Your task to perform on an android device: turn on translation in the chrome app Image 0: 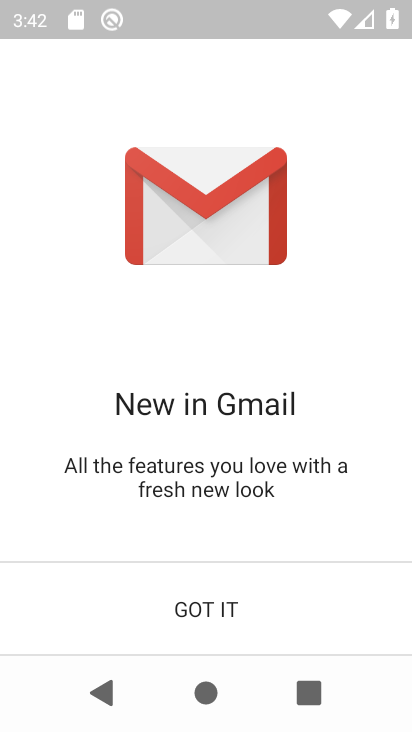
Step 0: press back button
Your task to perform on an android device: turn on translation in the chrome app Image 1: 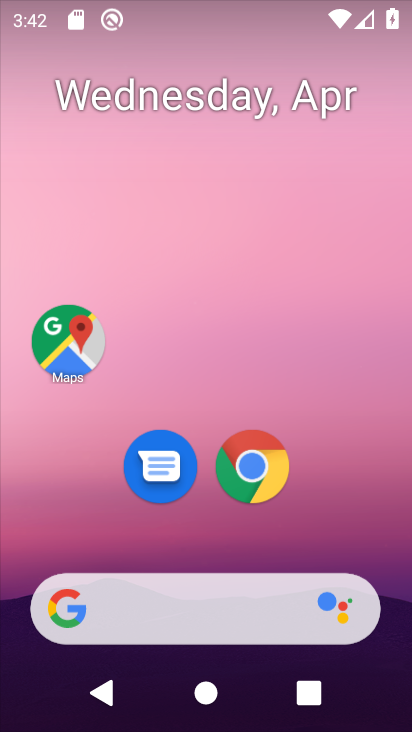
Step 1: drag from (233, 271) to (288, 76)
Your task to perform on an android device: turn on translation in the chrome app Image 2: 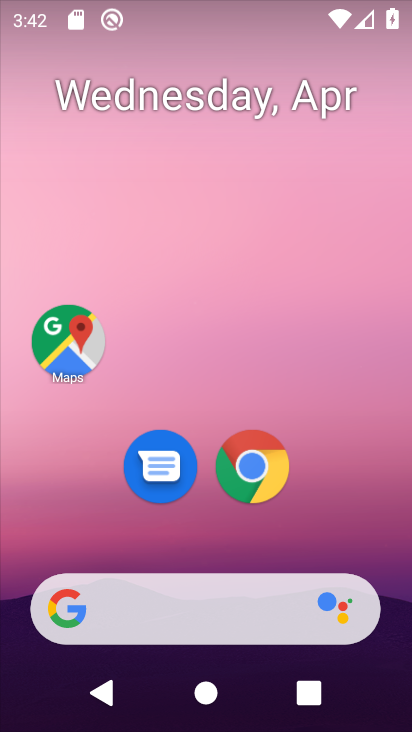
Step 2: drag from (218, 418) to (290, 59)
Your task to perform on an android device: turn on translation in the chrome app Image 3: 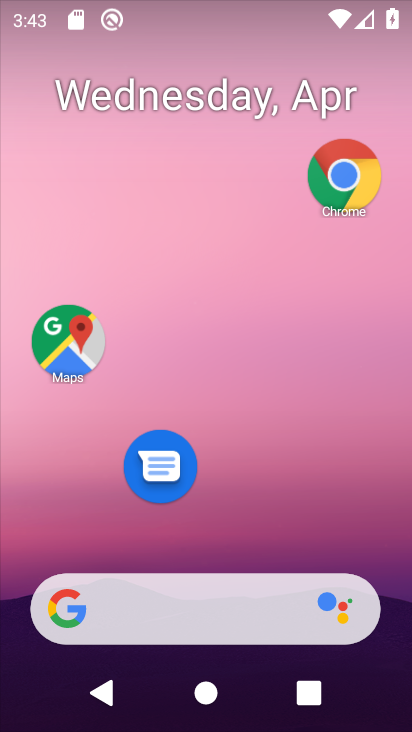
Step 3: drag from (241, 539) to (274, 30)
Your task to perform on an android device: turn on translation in the chrome app Image 4: 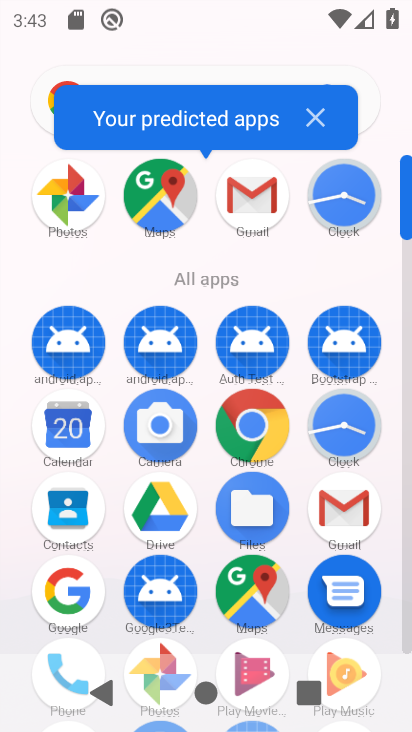
Step 4: drag from (178, 558) to (218, 371)
Your task to perform on an android device: turn on translation in the chrome app Image 5: 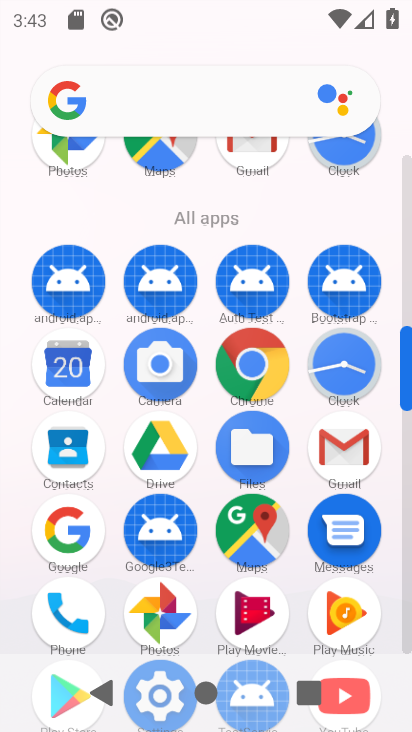
Step 5: click (245, 377)
Your task to perform on an android device: turn on translation in the chrome app Image 6: 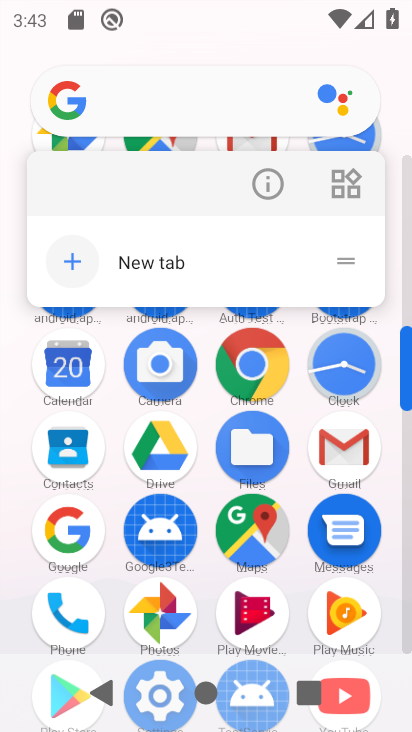
Step 6: click (254, 353)
Your task to perform on an android device: turn on translation in the chrome app Image 7: 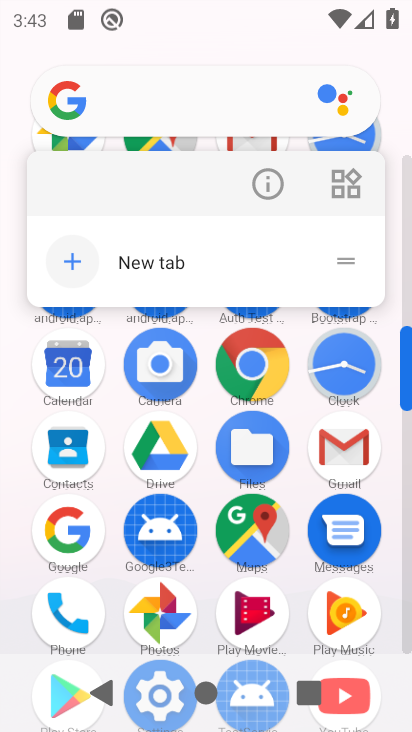
Step 7: click (256, 362)
Your task to perform on an android device: turn on translation in the chrome app Image 8: 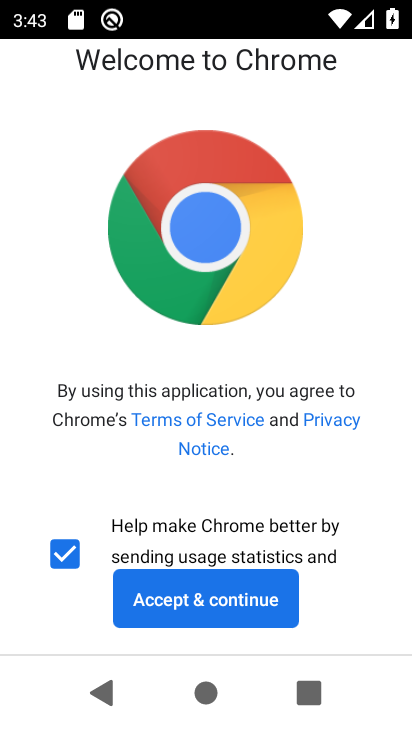
Step 8: click (254, 611)
Your task to perform on an android device: turn on translation in the chrome app Image 9: 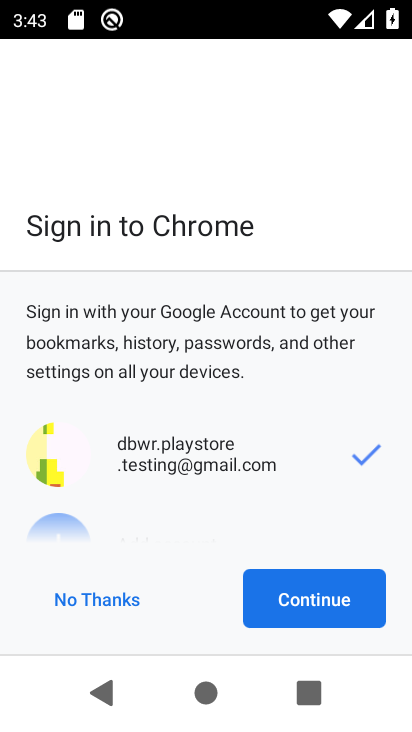
Step 9: click (304, 603)
Your task to perform on an android device: turn on translation in the chrome app Image 10: 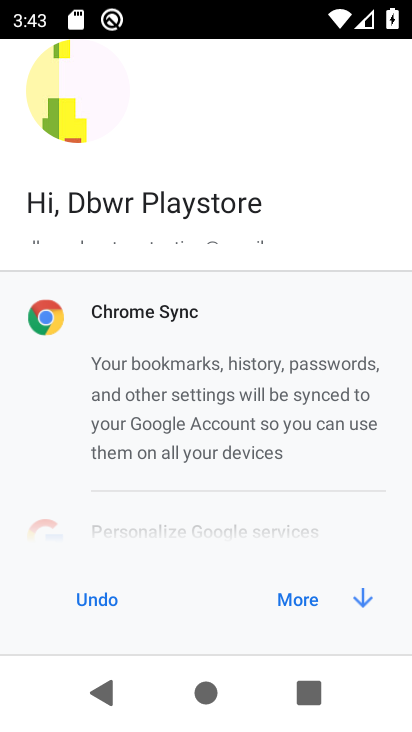
Step 10: click (317, 607)
Your task to perform on an android device: turn on translation in the chrome app Image 11: 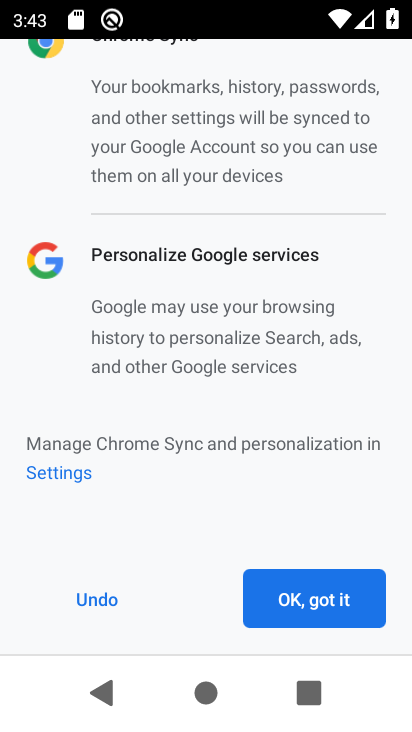
Step 11: click (317, 607)
Your task to perform on an android device: turn on translation in the chrome app Image 12: 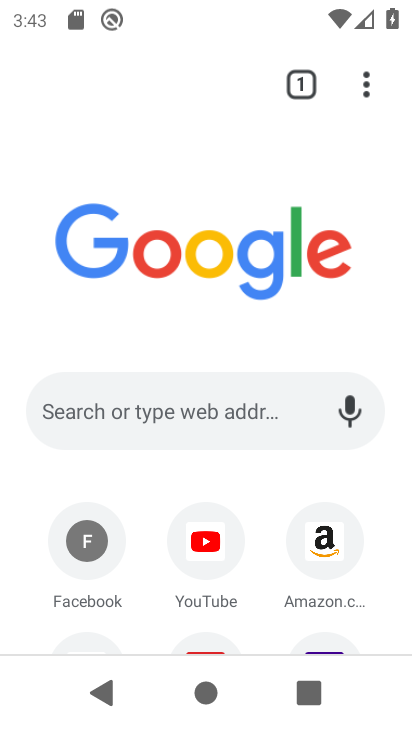
Step 12: drag from (365, 99) to (251, 523)
Your task to perform on an android device: turn on translation in the chrome app Image 13: 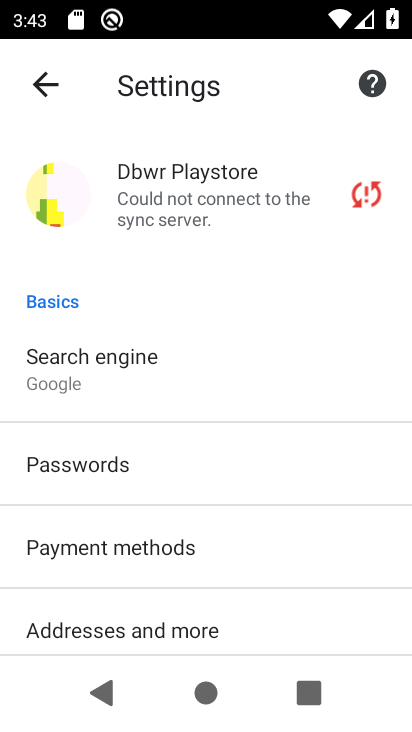
Step 13: drag from (237, 627) to (352, 246)
Your task to perform on an android device: turn on translation in the chrome app Image 14: 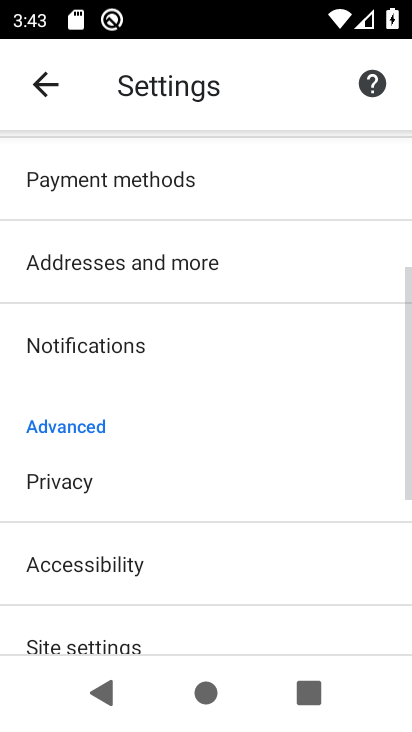
Step 14: drag from (240, 504) to (321, 257)
Your task to perform on an android device: turn on translation in the chrome app Image 15: 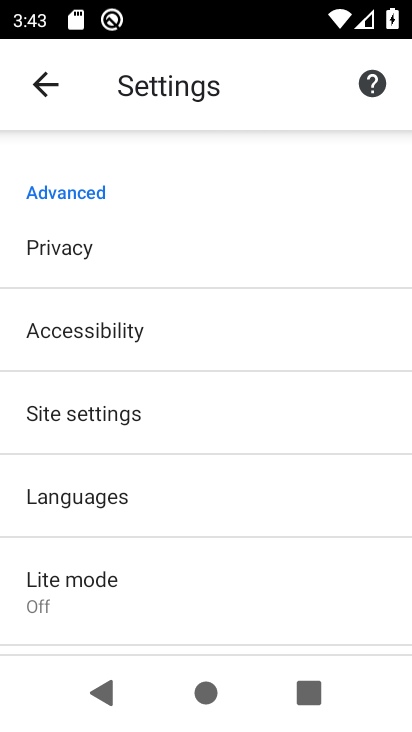
Step 15: click (176, 509)
Your task to perform on an android device: turn on translation in the chrome app Image 16: 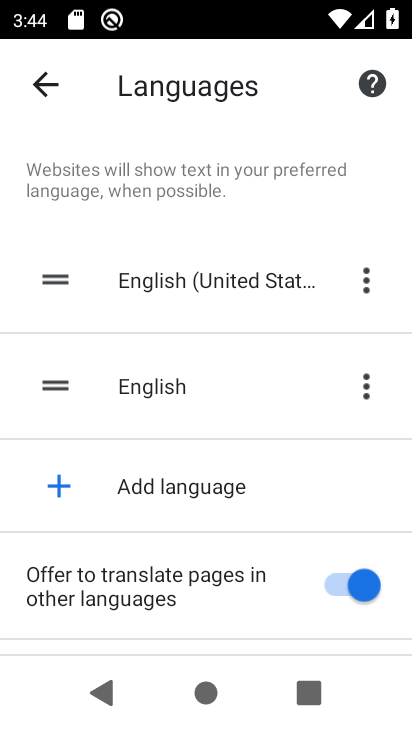
Step 16: task complete